Your task to perform on an android device: Open sound settings Image 0: 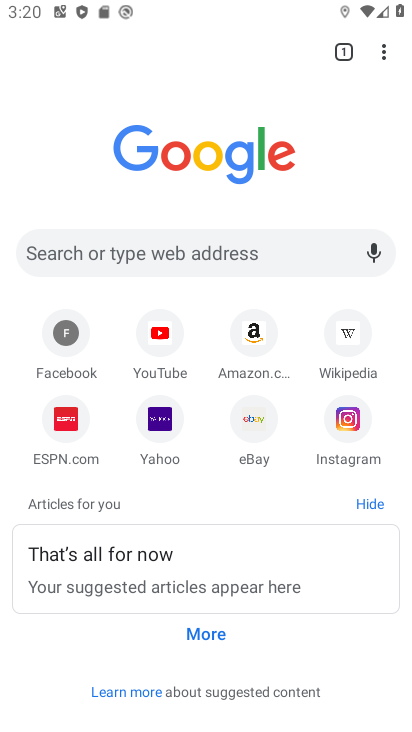
Step 0: press home button
Your task to perform on an android device: Open sound settings Image 1: 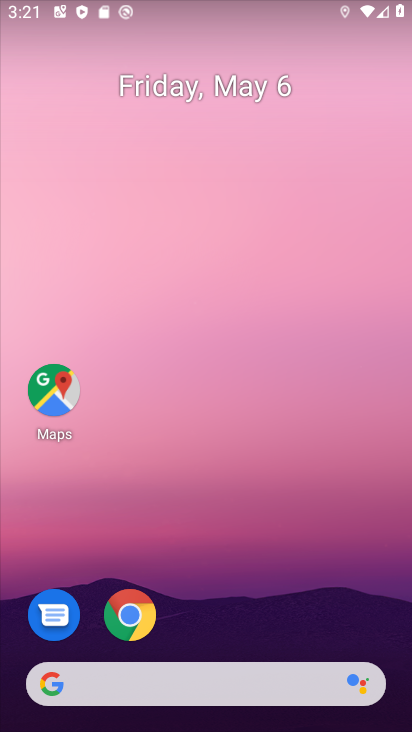
Step 1: drag from (272, 605) to (317, 156)
Your task to perform on an android device: Open sound settings Image 2: 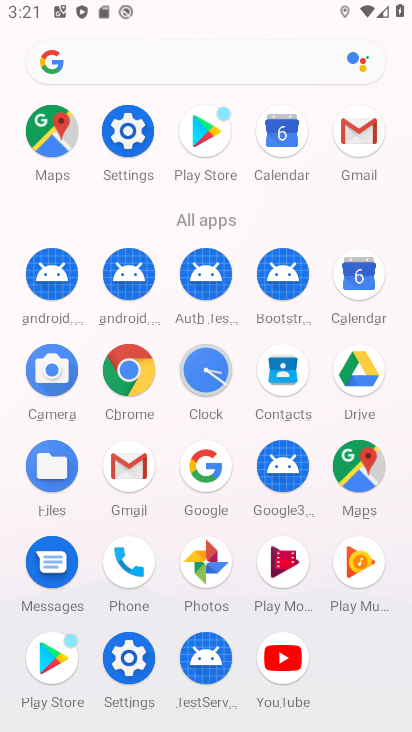
Step 2: click (121, 117)
Your task to perform on an android device: Open sound settings Image 3: 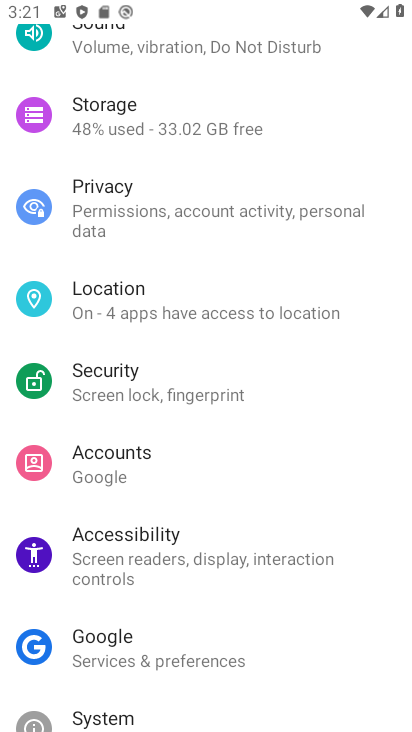
Step 3: drag from (211, 121) to (148, 561)
Your task to perform on an android device: Open sound settings Image 4: 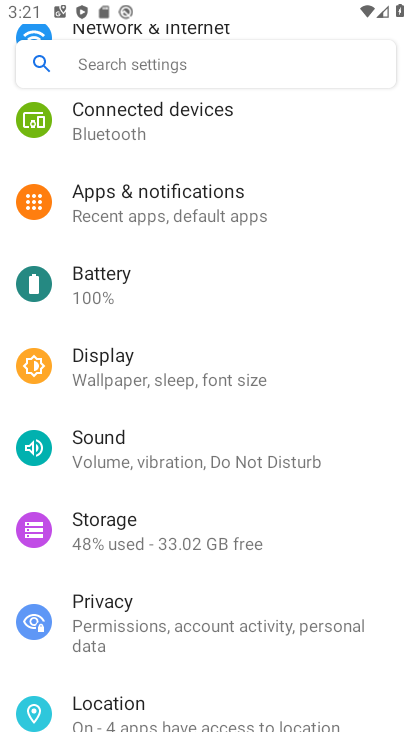
Step 4: click (152, 453)
Your task to perform on an android device: Open sound settings Image 5: 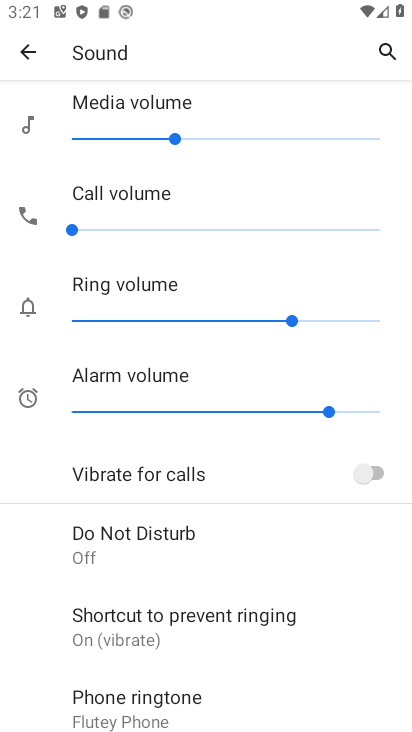
Step 5: task complete